Your task to perform on an android device: change keyboard looks Image 0: 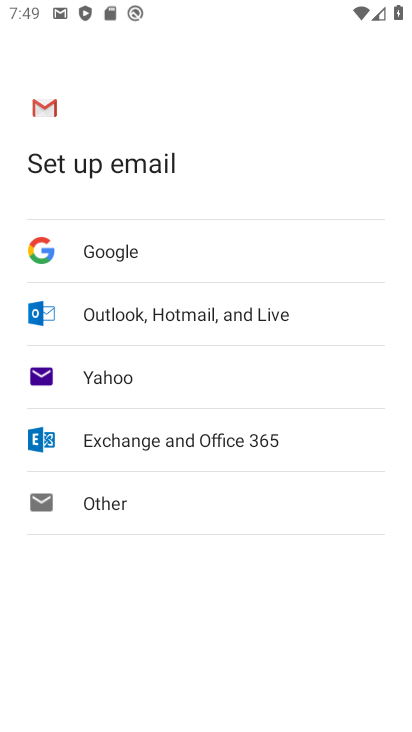
Step 0: press home button
Your task to perform on an android device: change keyboard looks Image 1: 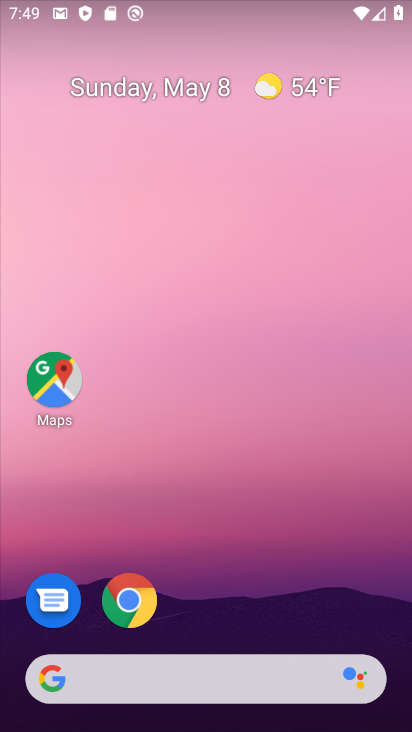
Step 1: drag from (287, 673) to (355, 308)
Your task to perform on an android device: change keyboard looks Image 2: 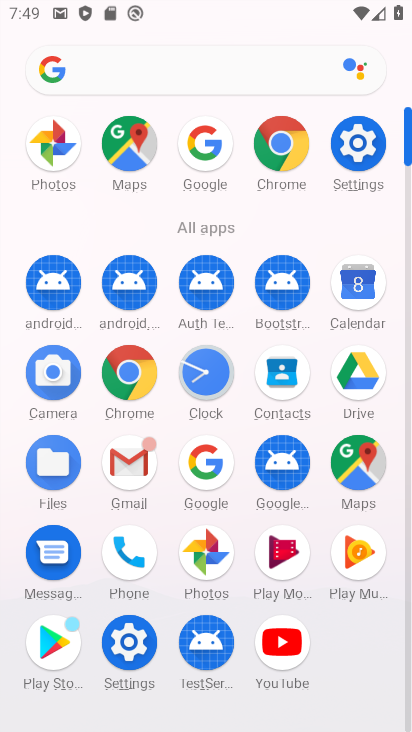
Step 2: click (360, 153)
Your task to perform on an android device: change keyboard looks Image 3: 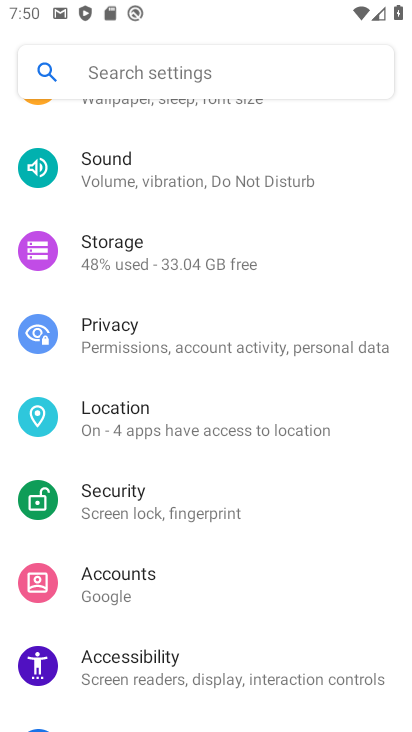
Step 3: drag from (215, 356) to (261, 162)
Your task to perform on an android device: change keyboard looks Image 4: 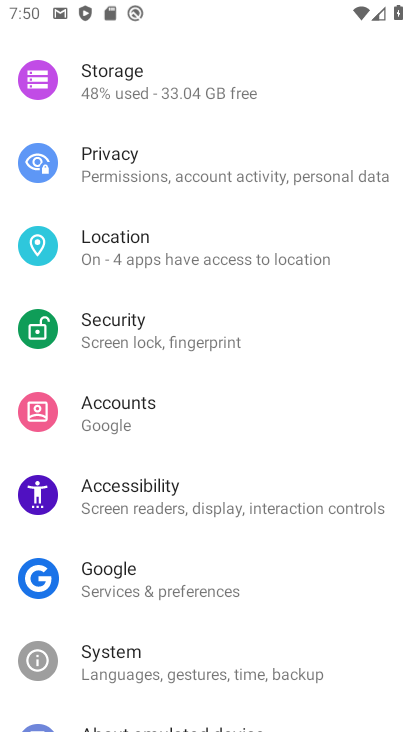
Step 4: drag from (202, 419) to (232, 268)
Your task to perform on an android device: change keyboard looks Image 5: 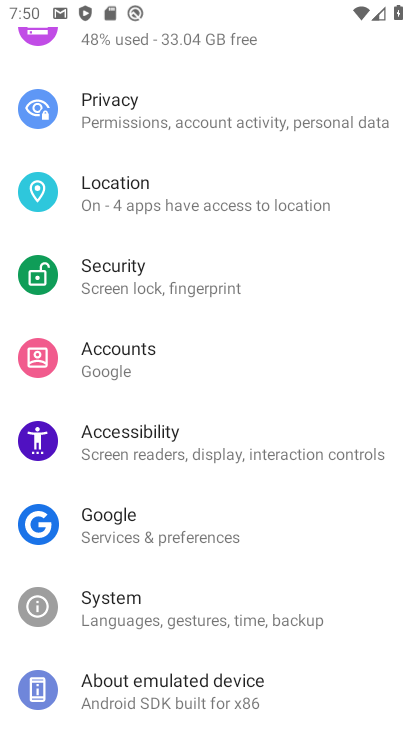
Step 5: drag from (189, 609) to (229, 355)
Your task to perform on an android device: change keyboard looks Image 6: 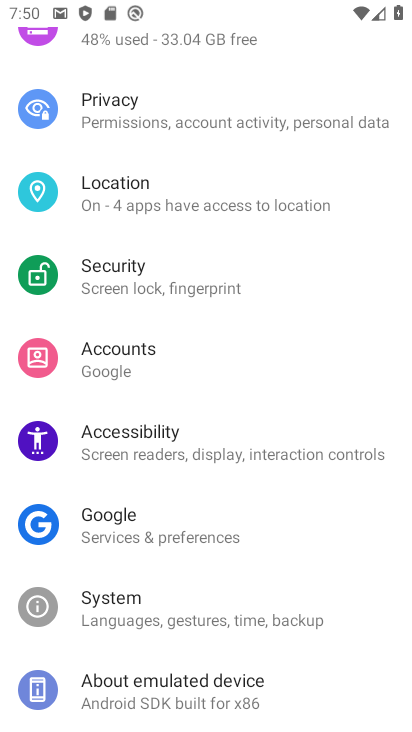
Step 6: click (202, 612)
Your task to perform on an android device: change keyboard looks Image 7: 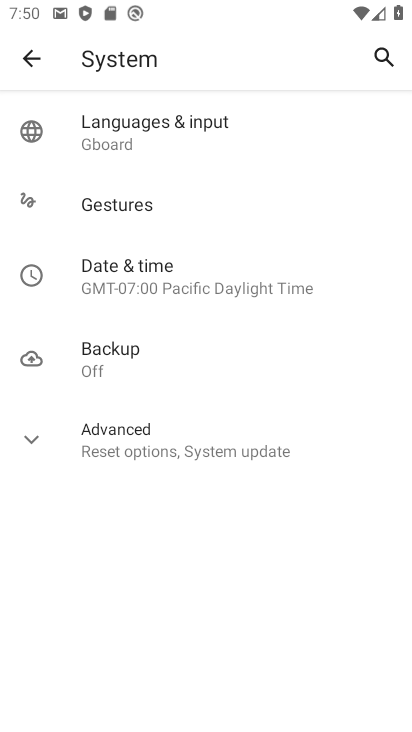
Step 7: click (244, 139)
Your task to perform on an android device: change keyboard looks Image 8: 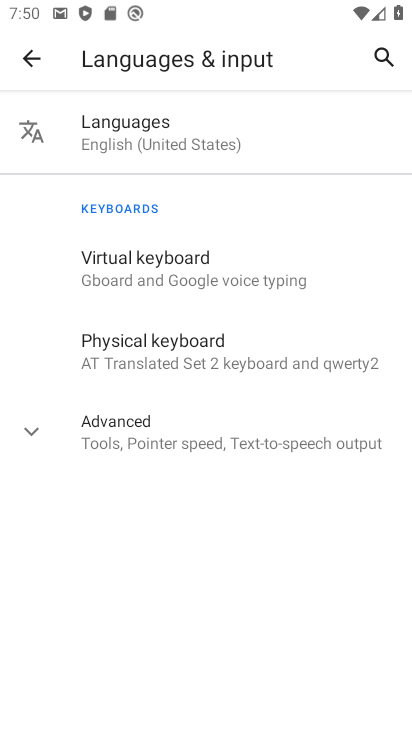
Step 8: click (203, 284)
Your task to perform on an android device: change keyboard looks Image 9: 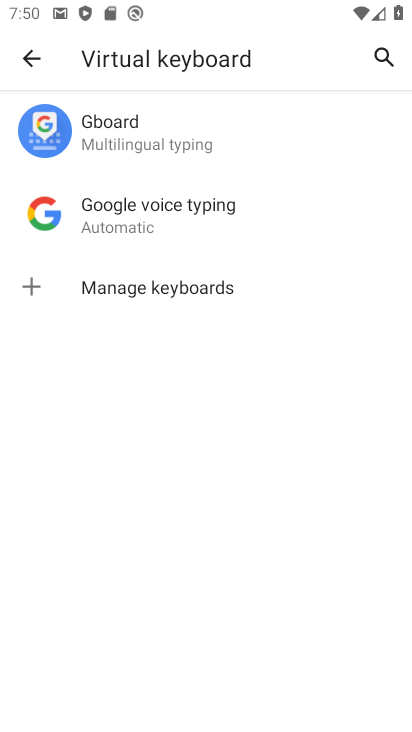
Step 9: click (173, 118)
Your task to perform on an android device: change keyboard looks Image 10: 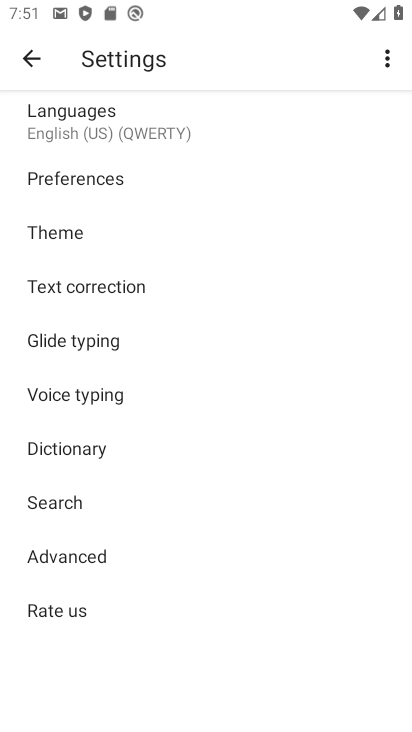
Step 10: click (122, 240)
Your task to perform on an android device: change keyboard looks Image 11: 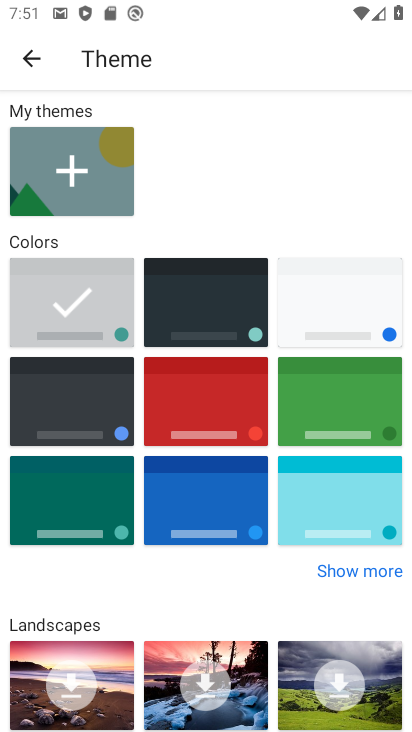
Step 11: click (196, 396)
Your task to perform on an android device: change keyboard looks Image 12: 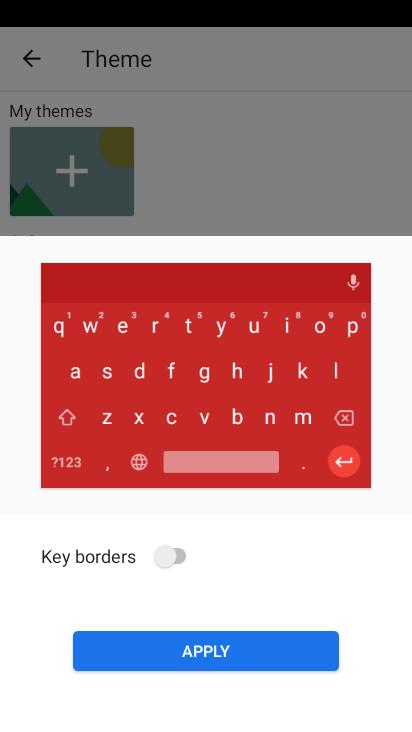
Step 12: click (203, 653)
Your task to perform on an android device: change keyboard looks Image 13: 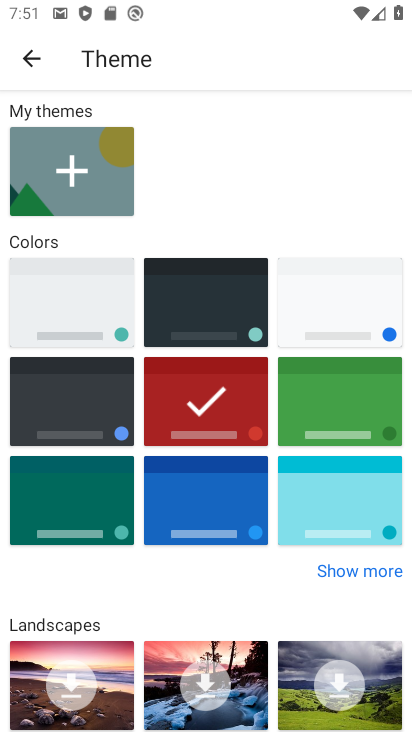
Step 13: task complete